Your task to perform on an android device: Open Google Maps and go to "Timeline" Image 0: 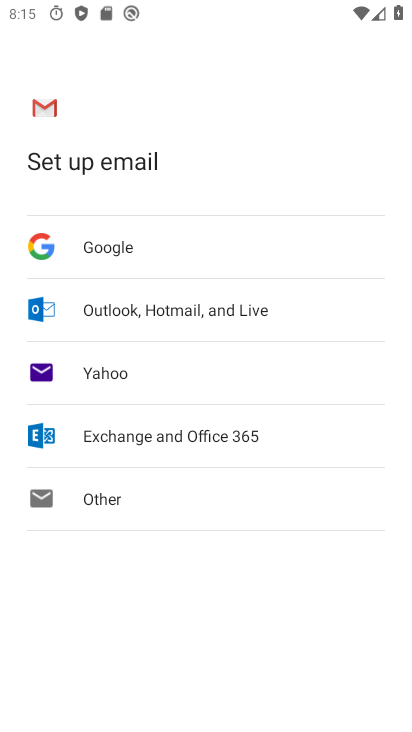
Step 0: press back button
Your task to perform on an android device: Open Google Maps and go to "Timeline" Image 1: 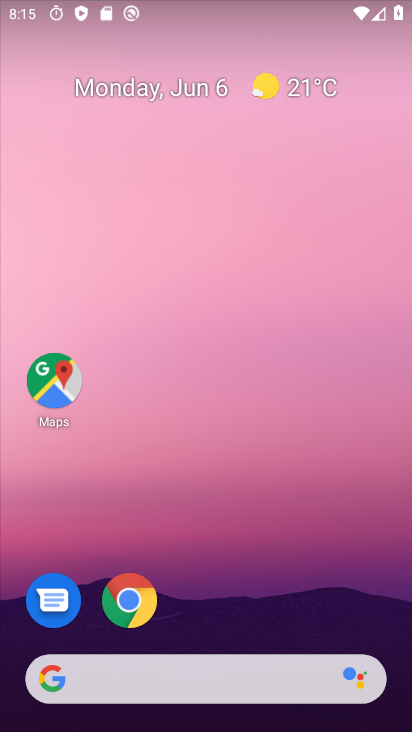
Step 1: drag from (320, 559) to (294, 32)
Your task to perform on an android device: Open Google Maps and go to "Timeline" Image 2: 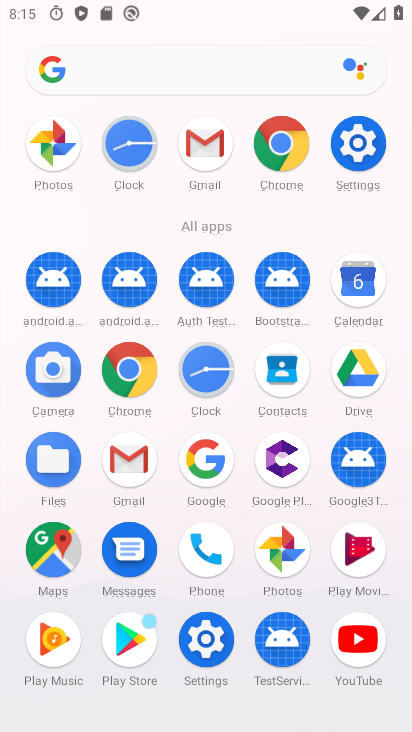
Step 2: click (49, 547)
Your task to perform on an android device: Open Google Maps and go to "Timeline" Image 3: 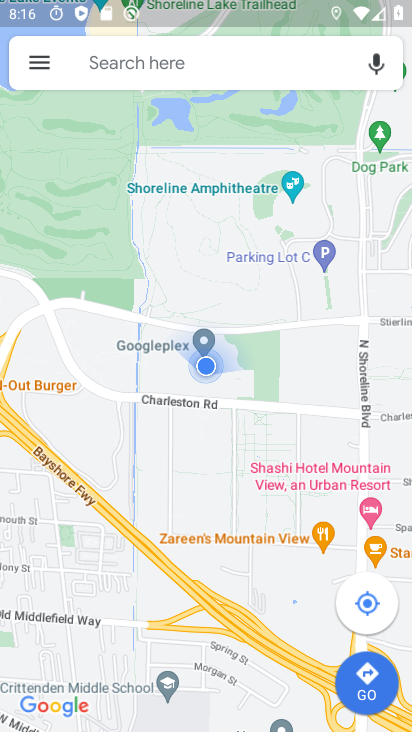
Step 3: click (27, 55)
Your task to perform on an android device: Open Google Maps and go to "Timeline" Image 4: 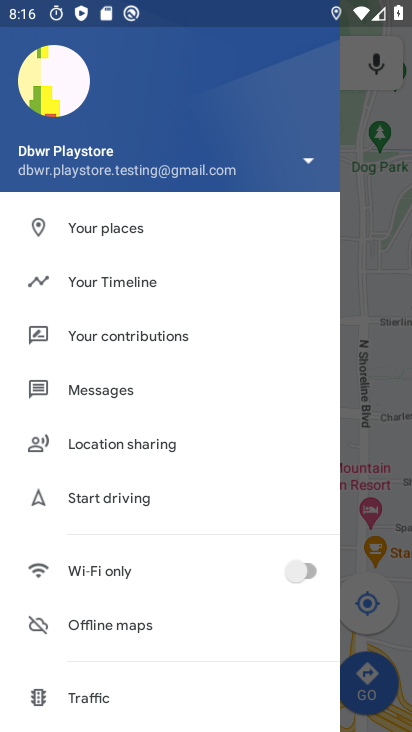
Step 4: click (89, 278)
Your task to perform on an android device: Open Google Maps and go to "Timeline" Image 5: 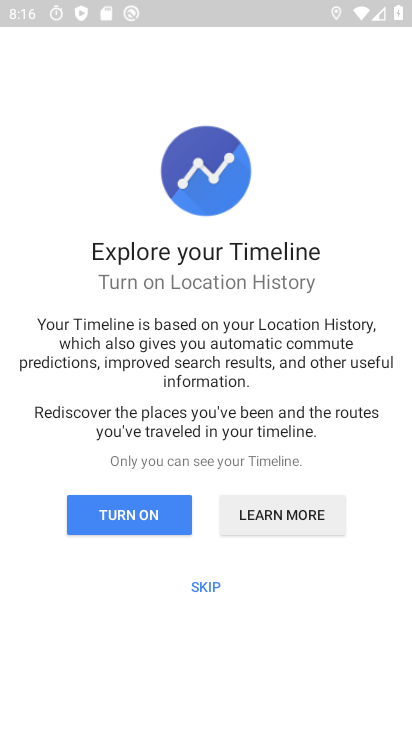
Step 5: click (112, 515)
Your task to perform on an android device: Open Google Maps and go to "Timeline" Image 6: 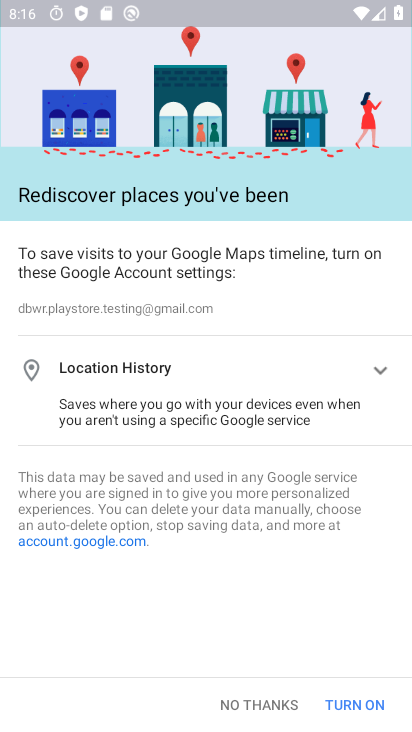
Step 6: click (335, 700)
Your task to perform on an android device: Open Google Maps and go to "Timeline" Image 7: 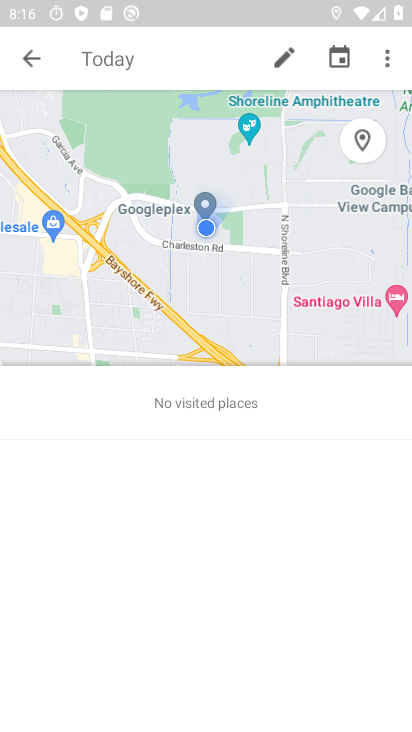
Step 7: task complete